Your task to perform on an android device: search for starred emails in the gmail app Image 0: 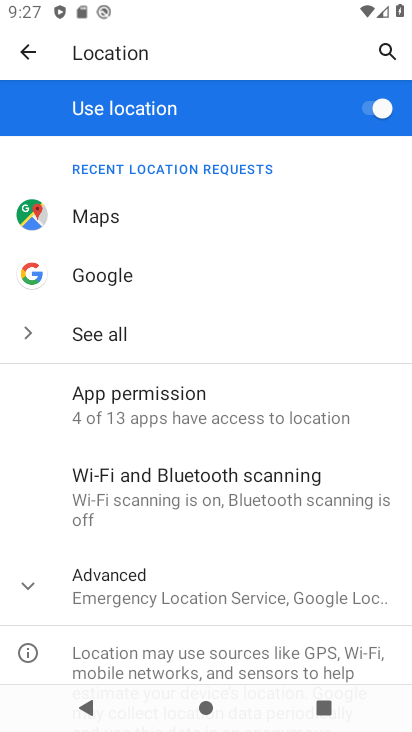
Step 0: press home button
Your task to perform on an android device: search for starred emails in the gmail app Image 1: 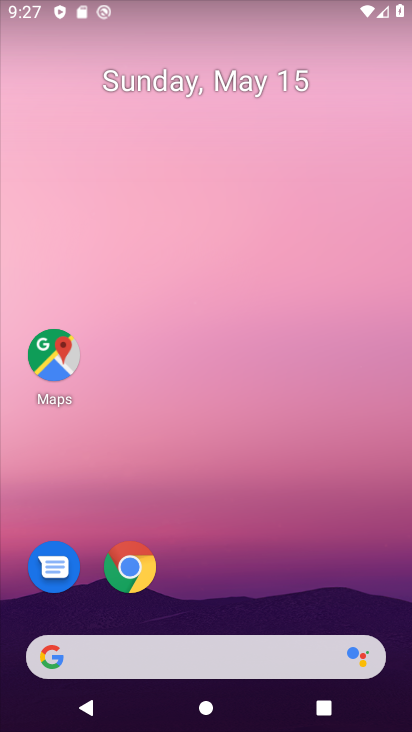
Step 1: drag from (303, 600) to (284, 64)
Your task to perform on an android device: search for starred emails in the gmail app Image 2: 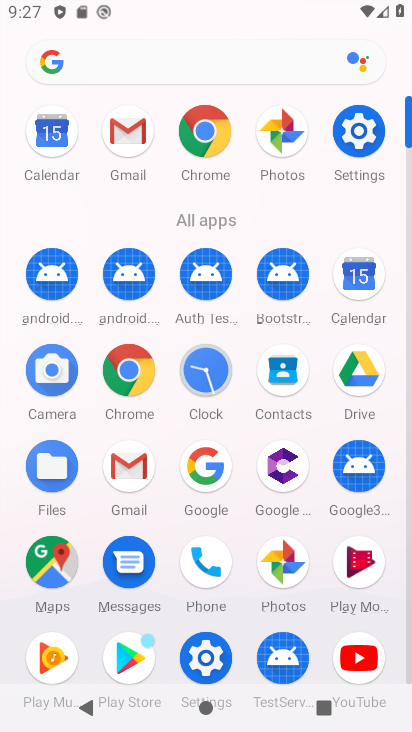
Step 2: click (138, 473)
Your task to perform on an android device: search for starred emails in the gmail app Image 3: 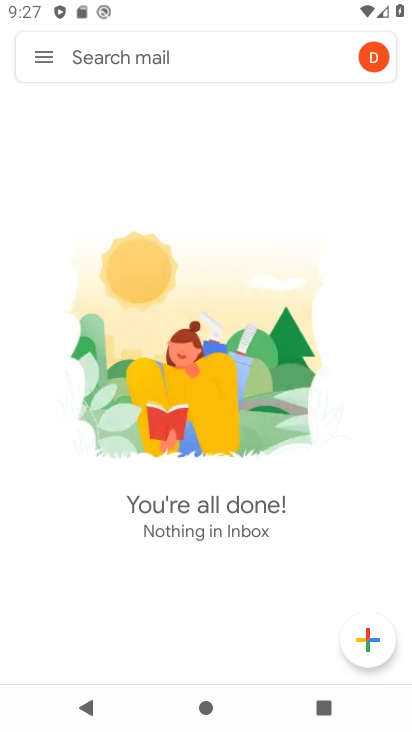
Step 3: click (56, 54)
Your task to perform on an android device: search for starred emails in the gmail app Image 4: 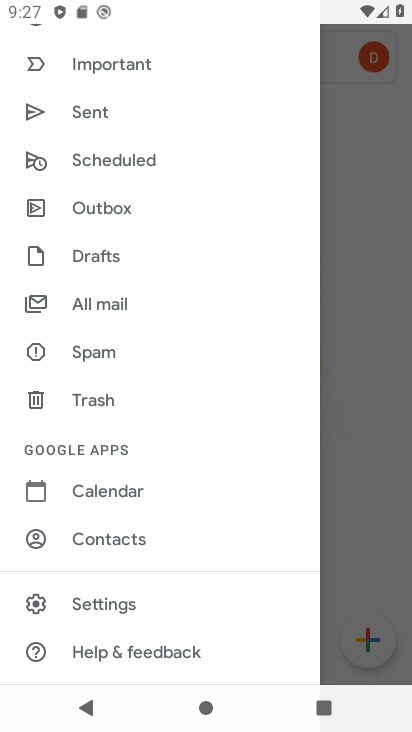
Step 4: drag from (149, 141) to (139, 454)
Your task to perform on an android device: search for starred emails in the gmail app Image 5: 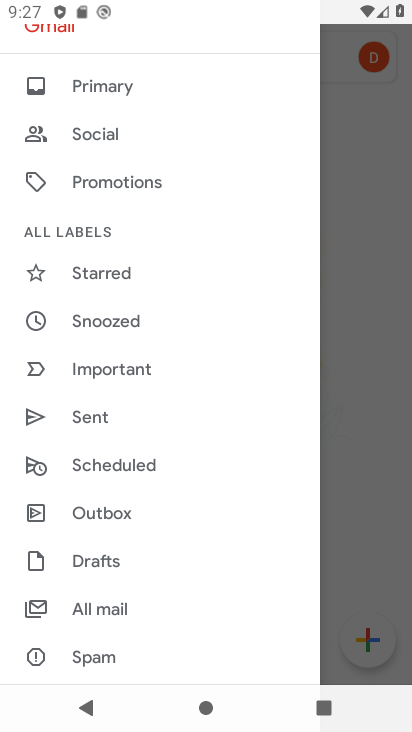
Step 5: click (149, 276)
Your task to perform on an android device: search for starred emails in the gmail app Image 6: 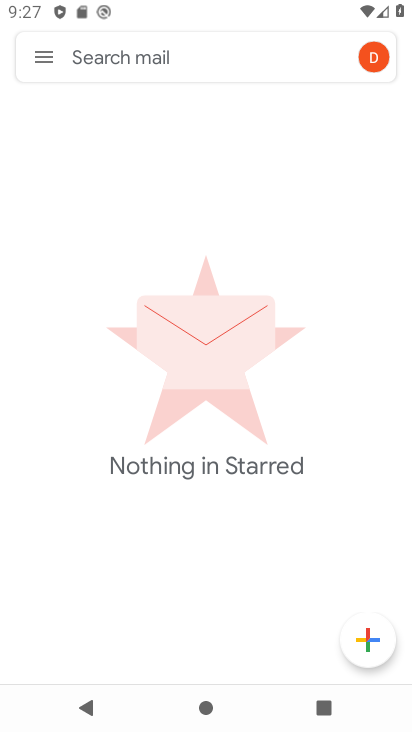
Step 6: task complete